Your task to perform on an android device: Go to battery settings Image 0: 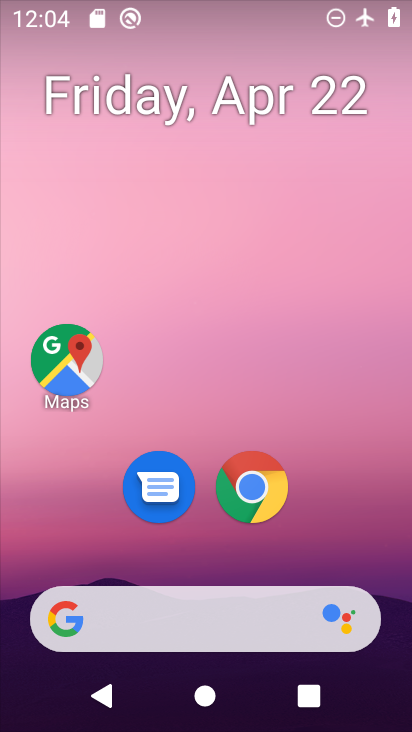
Step 0: drag from (220, 597) to (257, 266)
Your task to perform on an android device: Go to battery settings Image 1: 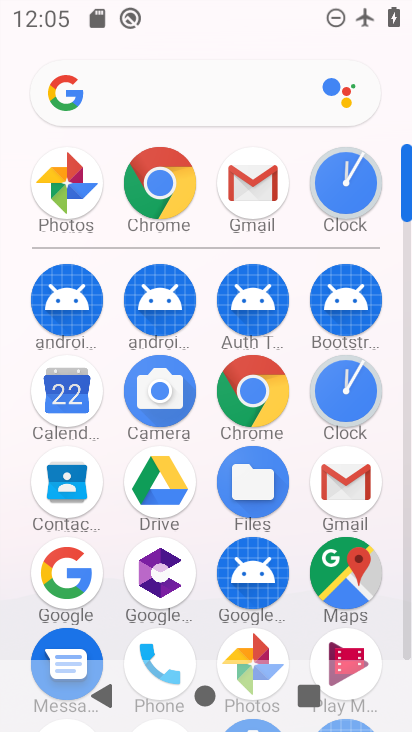
Step 1: drag from (189, 595) to (216, 223)
Your task to perform on an android device: Go to battery settings Image 2: 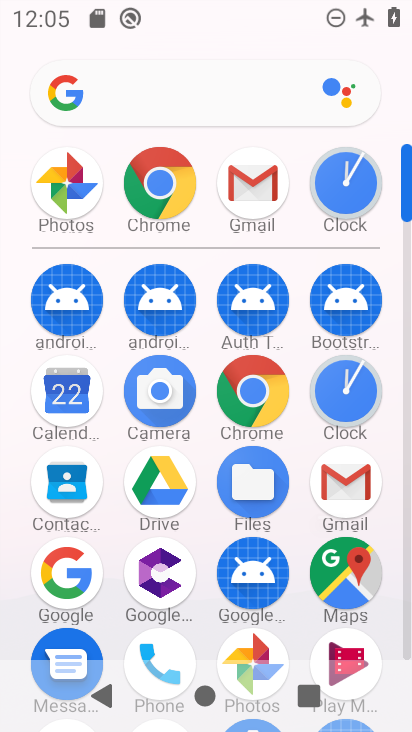
Step 2: drag from (308, 646) to (281, 196)
Your task to perform on an android device: Go to battery settings Image 3: 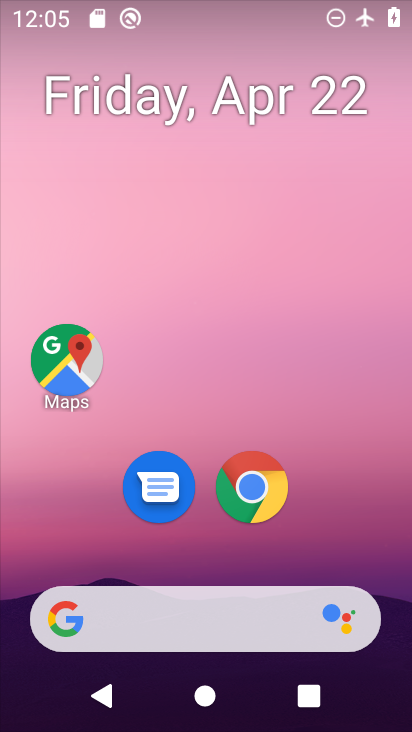
Step 3: drag from (308, 593) to (300, 202)
Your task to perform on an android device: Go to battery settings Image 4: 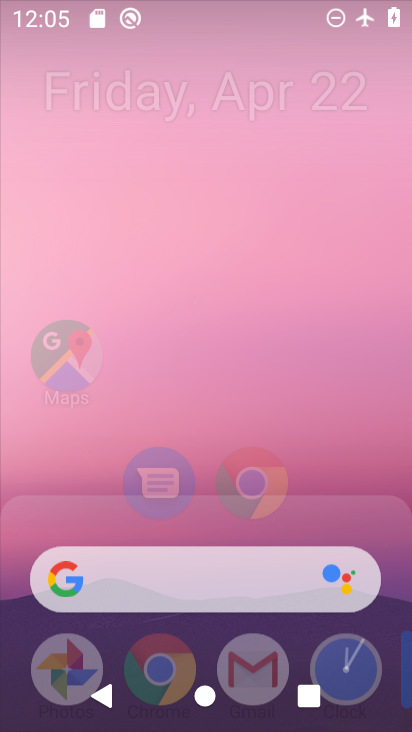
Step 4: drag from (184, 603) to (224, 141)
Your task to perform on an android device: Go to battery settings Image 5: 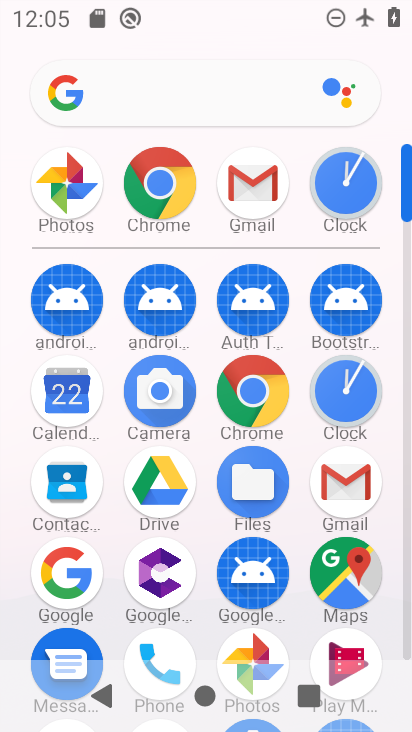
Step 5: drag from (192, 599) to (177, 192)
Your task to perform on an android device: Go to battery settings Image 6: 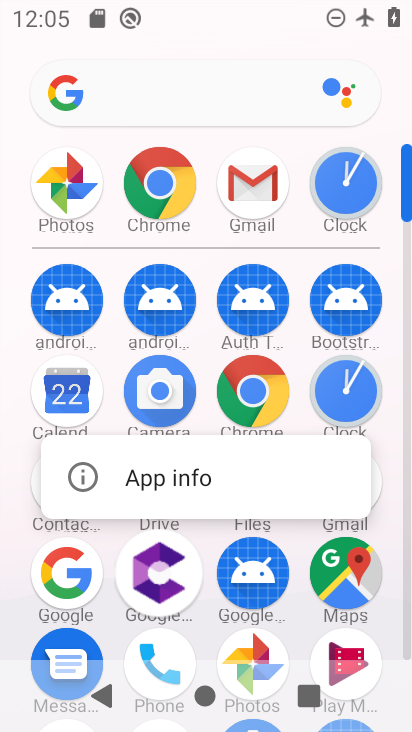
Step 6: drag from (253, 598) to (336, 164)
Your task to perform on an android device: Go to battery settings Image 7: 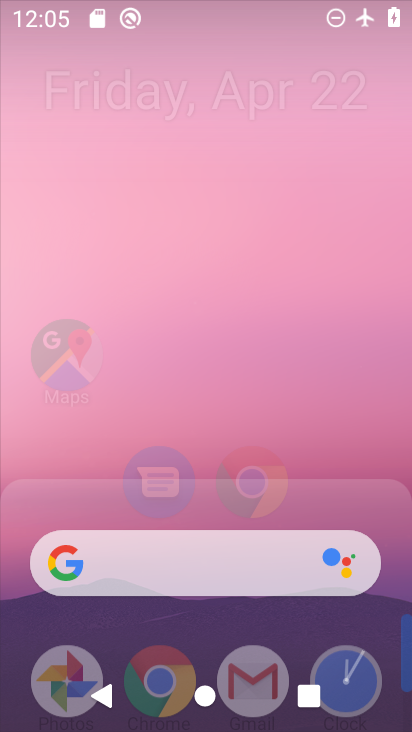
Step 7: drag from (294, 516) to (310, 200)
Your task to perform on an android device: Go to battery settings Image 8: 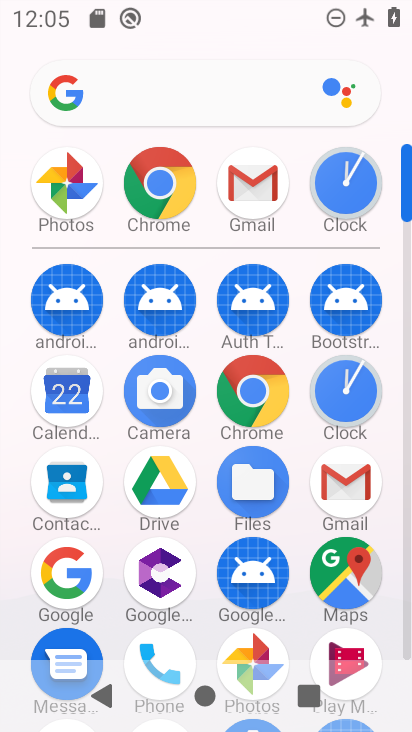
Step 8: drag from (289, 636) to (295, 256)
Your task to perform on an android device: Go to battery settings Image 9: 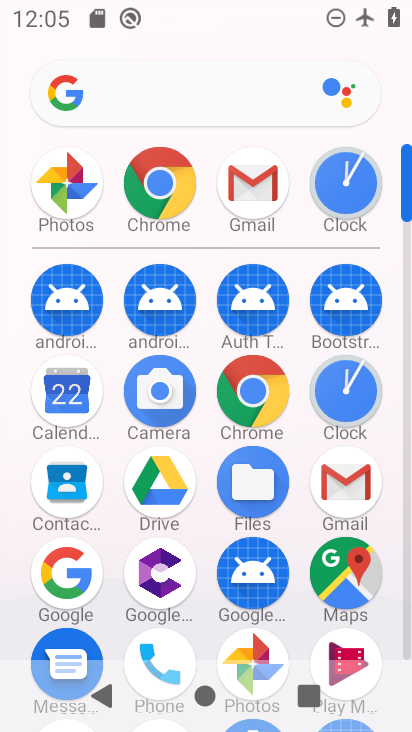
Step 9: drag from (408, 208) to (396, 310)
Your task to perform on an android device: Go to battery settings Image 10: 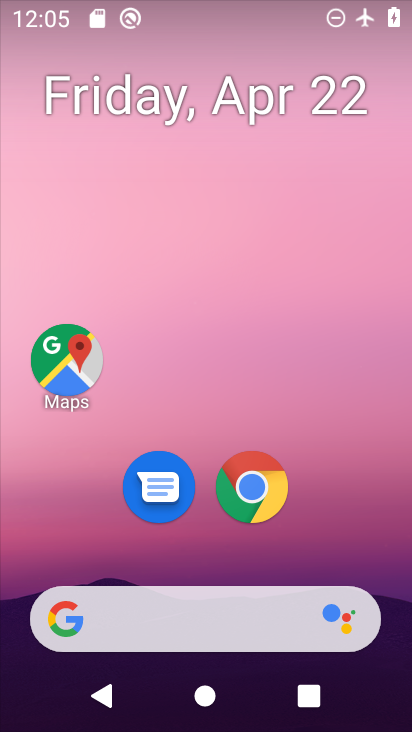
Step 10: drag from (328, 561) to (297, 107)
Your task to perform on an android device: Go to battery settings Image 11: 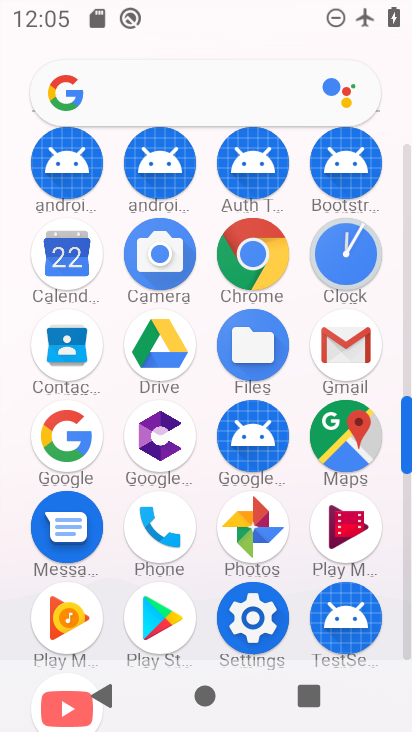
Step 11: click (255, 610)
Your task to perform on an android device: Go to battery settings Image 12: 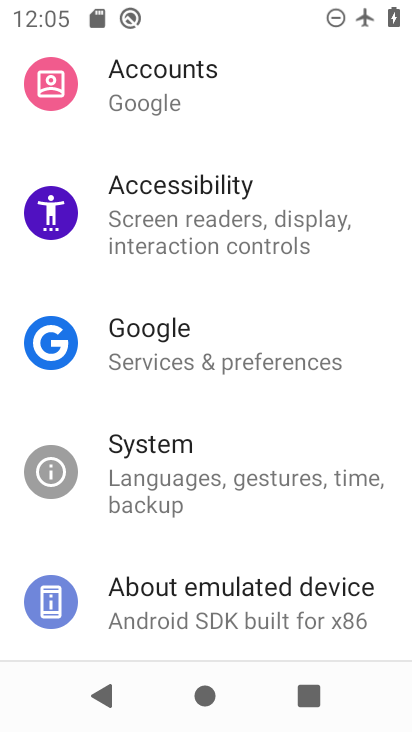
Step 12: drag from (245, 565) to (290, 146)
Your task to perform on an android device: Go to battery settings Image 13: 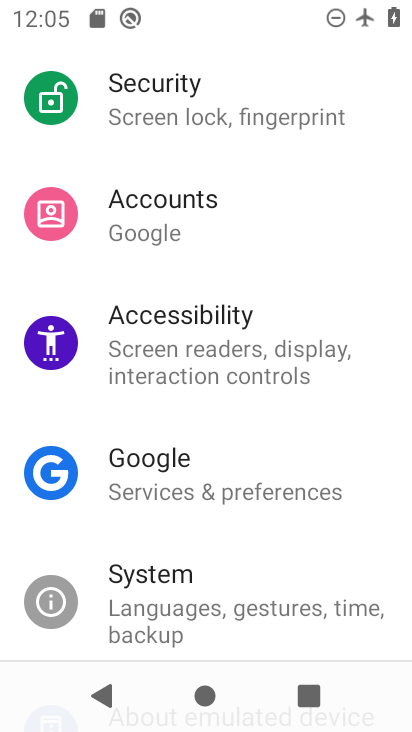
Step 13: drag from (226, 534) to (249, 235)
Your task to perform on an android device: Go to battery settings Image 14: 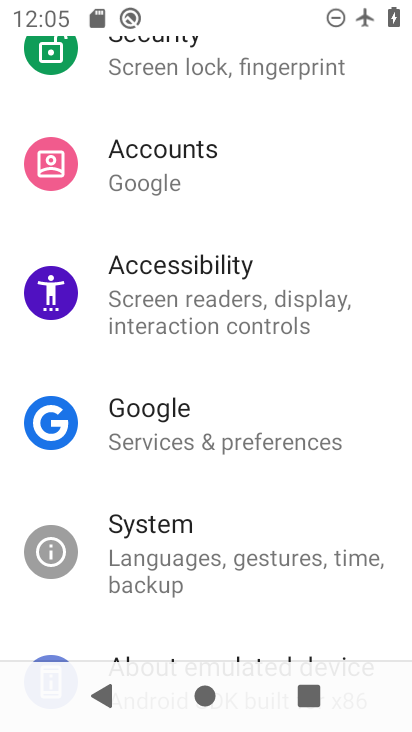
Step 14: drag from (199, 500) to (249, 130)
Your task to perform on an android device: Go to battery settings Image 15: 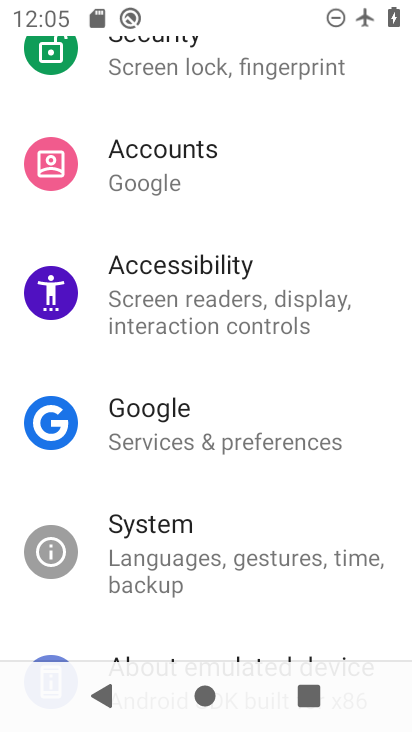
Step 15: drag from (217, 513) to (288, 214)
Your task to perform on an android device: Go to battery settings Image 16: 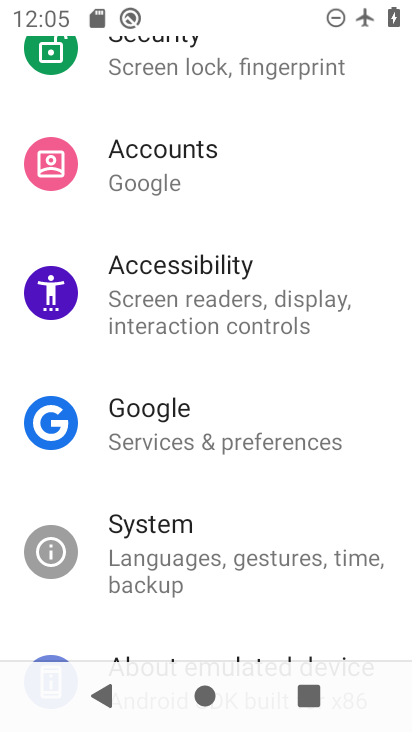
Step 16: drag from (220, 150) to (255, 603)
Your task to perform on an android device: Go to battery settings Image 17: 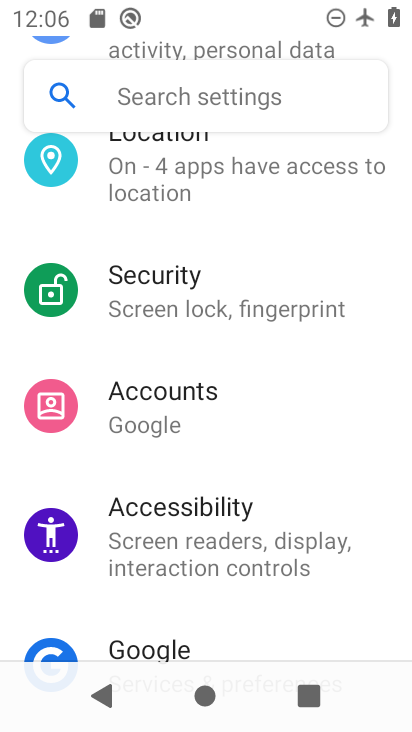
Step 17: drag from (233, 234) to (238, 591)
Your task to perform on an android device: Go to battery settings Image 18: 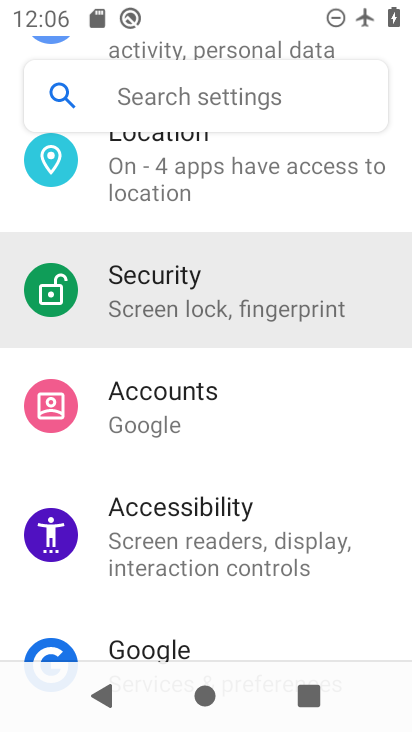
Step 18: drag from (224, 139) to (251, 642)
Your task to perform on an android device: Go to battery settings Image 19: 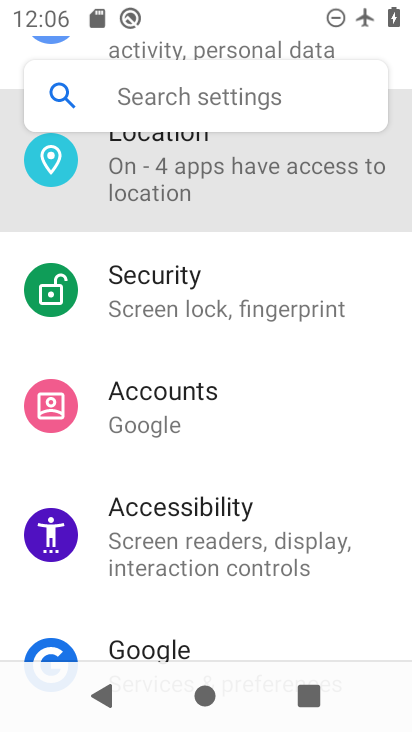
Step 19: drag from (191, 252) to (278, 619)
Your task to perform on an android device: Go to battery settings Image 20: 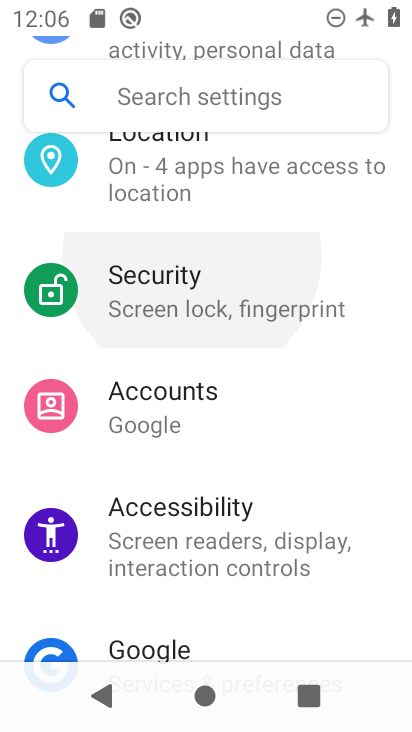
Step 20: drag from (195, 310) to (192, 714)
Your task to perform on an android device: Go to battery settings Image 21: 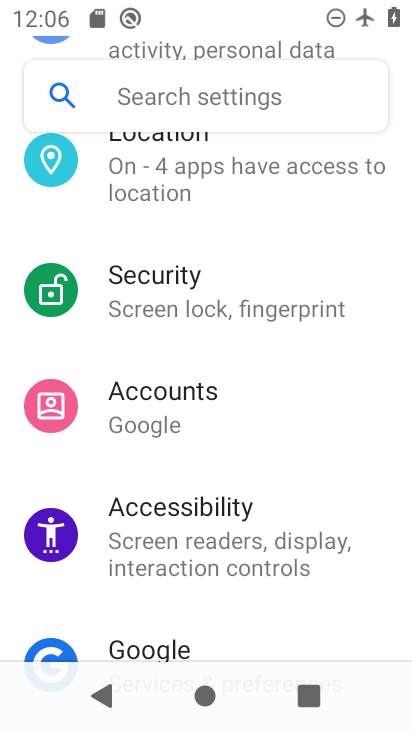
Step 21: drag from (171, 200) to (188, 555)
Your task to perform on an android device: Go to battery settings Image 22: 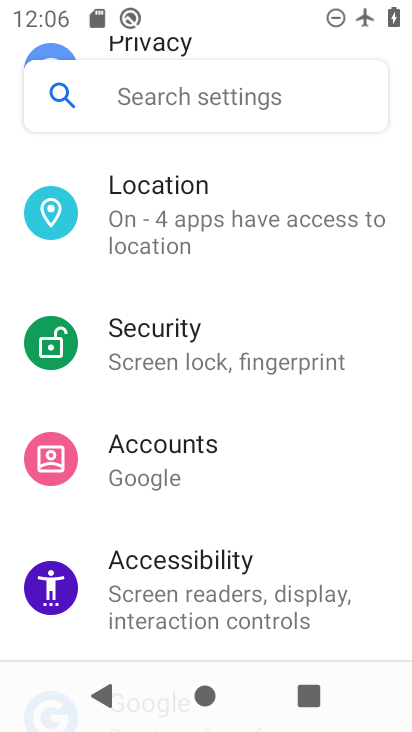
Step 22: drag from (161, 272) to (196, 646)
Your task to perform on an android device: Go to battery settings Image 23: 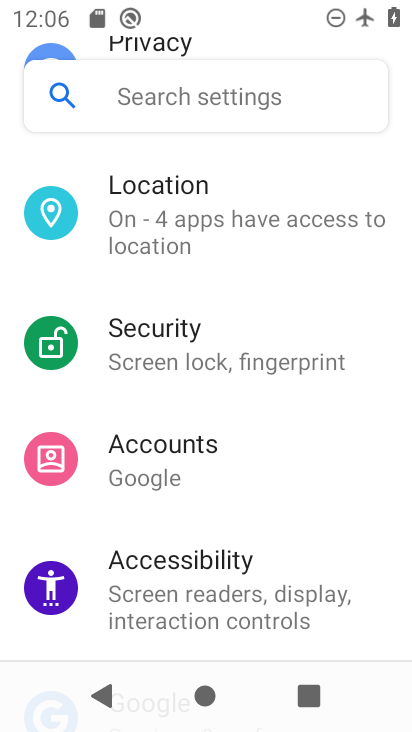
Step 23: drag from (225, 267) to (223, 659)
Your task to perform on an android device: Go to battery settings Image 24: 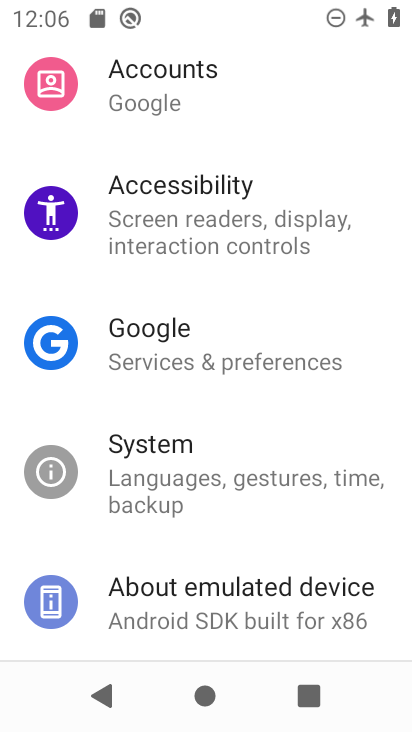
Step 24: drag from (235, 311) to (284, 625)
Your task to perform on an android device: Go to battery settings Image 25: 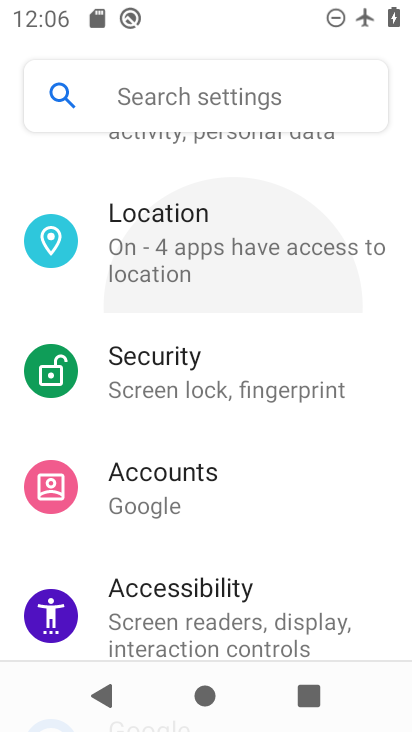
Step 25: drag from (229, 263) to (231, 640)
Your task to perform on an android device: Go to battery settings Image 26: 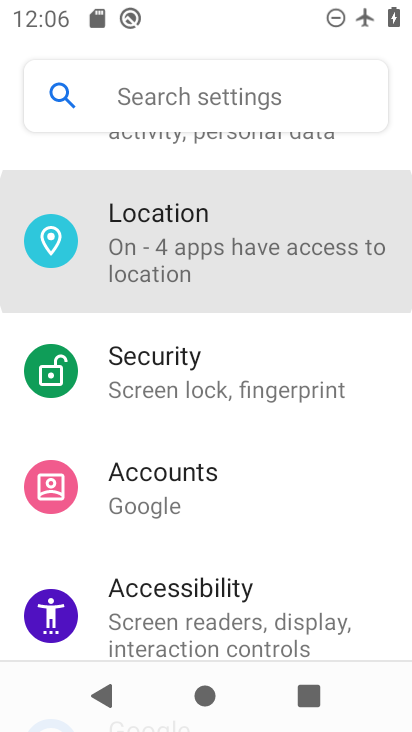
Step 26: click (204, 609)
Your task to perform on an android device: Go to battery settings Image 27: 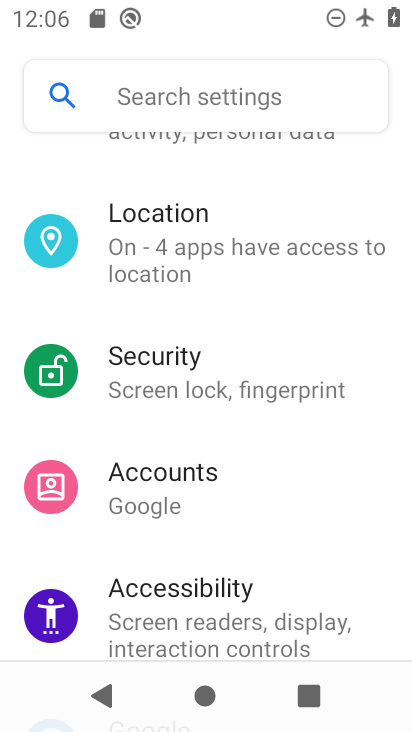
Step 27: drag from (241, 252) to (224, 699)
Your task to perform on an android device: Go to battery settings Image 28: 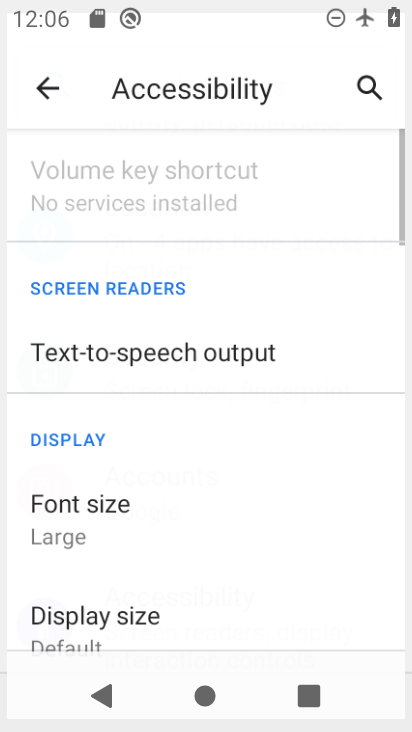
Step 28: drag from (211, 288) to (221, 624)
Your task to perform on an android device: Go to battery settings Image 29: 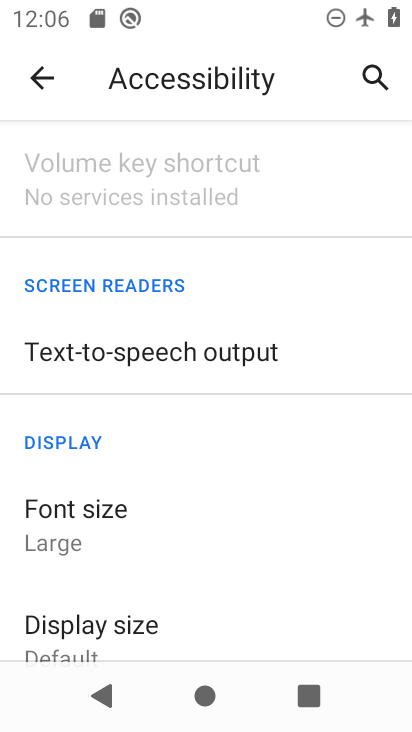
Step 29: click (0, 60)
Your task to perform on an android device: Go to battery settings Image 30: 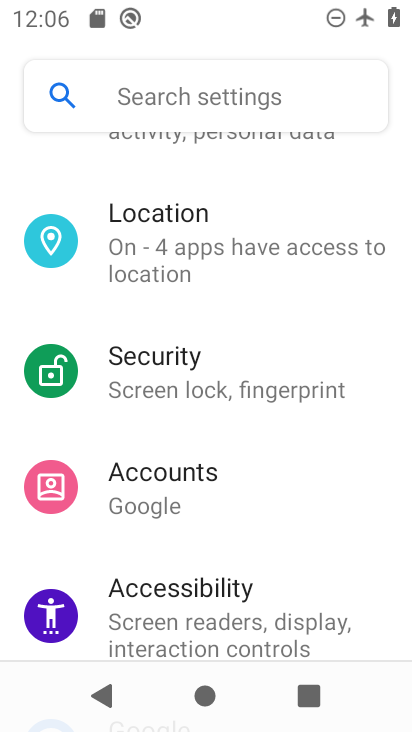
Step 30: drag from (297, 189) to (285, 582)
Your task to perform on an android device: Go to battery settings Image 31: 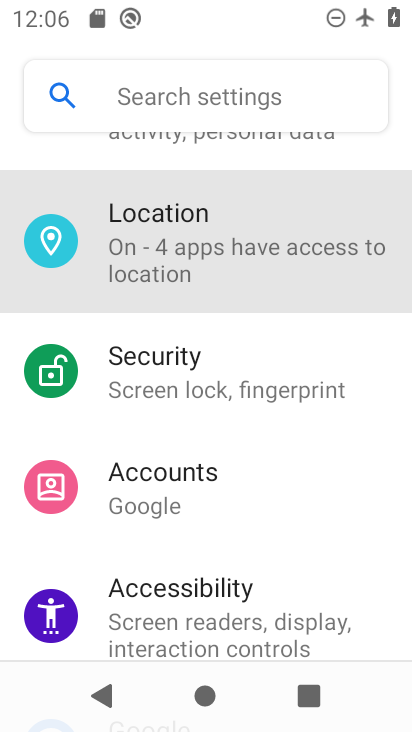
Step 31: drag from (226, 219) to (227, 529)
Your task to perform on an android device: Go to battery settings Image 32: 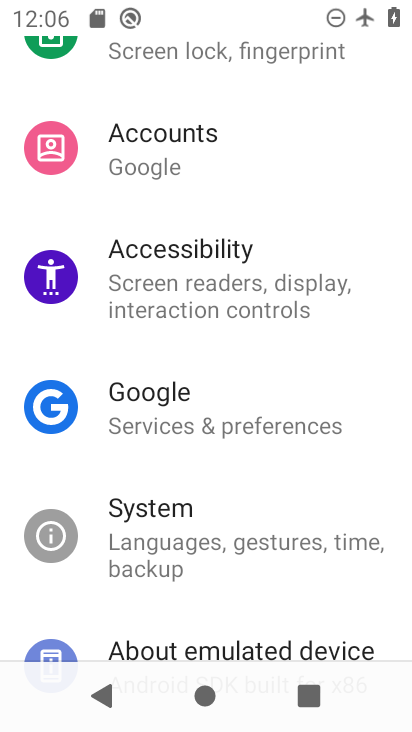
Step 32: drag from (229, 263) to (212, 616)
Your task to perform on an android device: Go to battery settings Image 33: 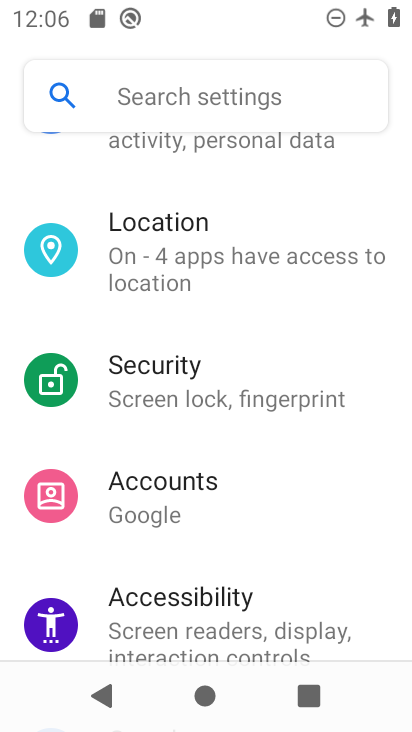
Step 33: drag from (226, 300) to (230, 580)
Your task to perform on an android device: Go to battery settings Image 34: 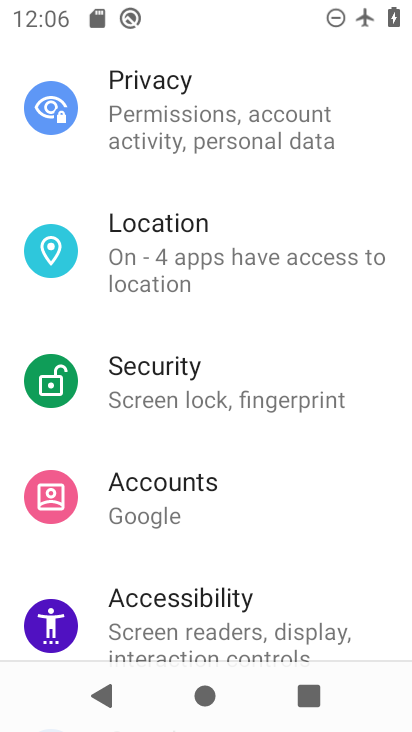
Step 34: drag from (241, 358) to (226, 459)
Your task to perform on an android device: Go to battery settings Image 35: 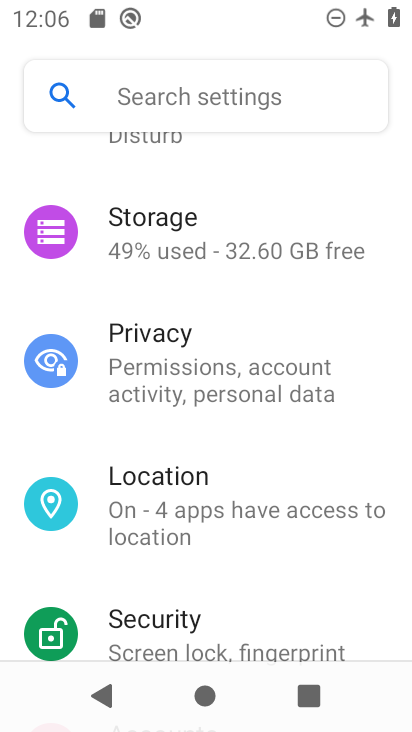
Step 35: click (197, 106)
Your task to perform on an android device: Go to battery settings Image 36: 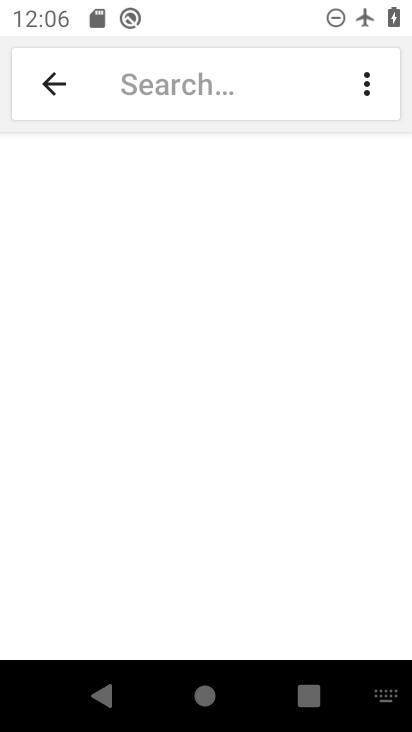
Step 36: click (182, 74)
Your task to perform on an android device: Go to battery settings Image 37: 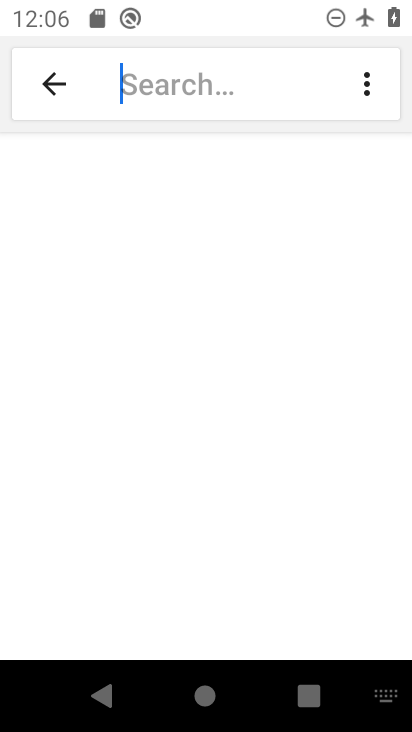
Step 37: type "battery"
Your task to perform on an android device: Go to battery settings Image 38: 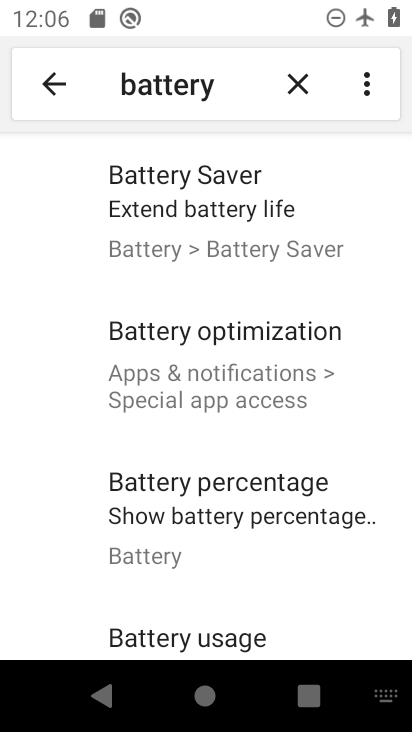
Step 38: drag from (269, 579) to (311, 148)
Your task to perform on an android device: Go to battery settings Image 39: 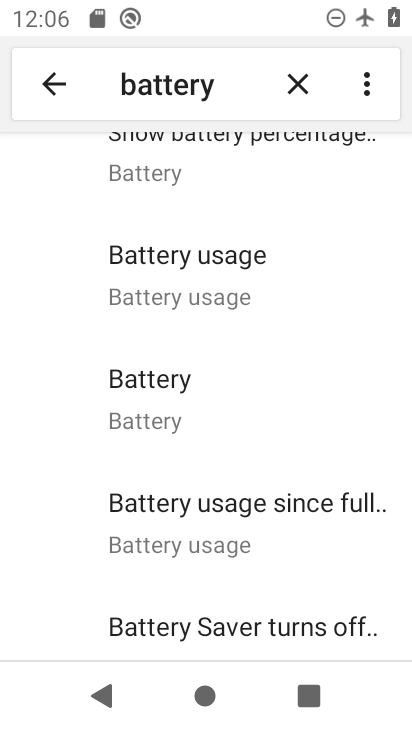
Step 39: click (203, 393)
Your task to perform on an android device: Go to battery settings Image 40: 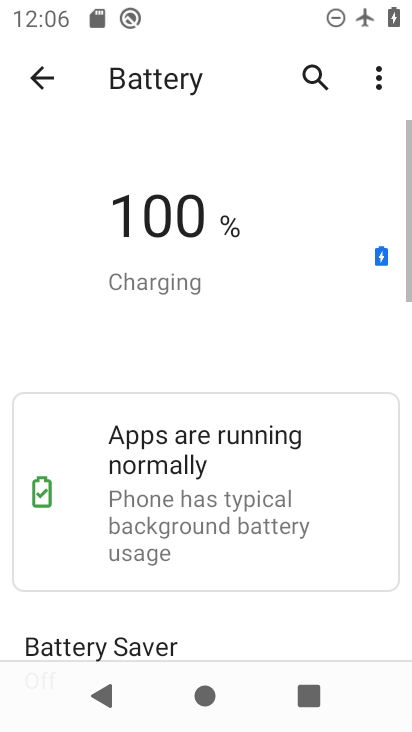
Step 40: task complete